Your task to perform on an android device: Open Google Image 0: 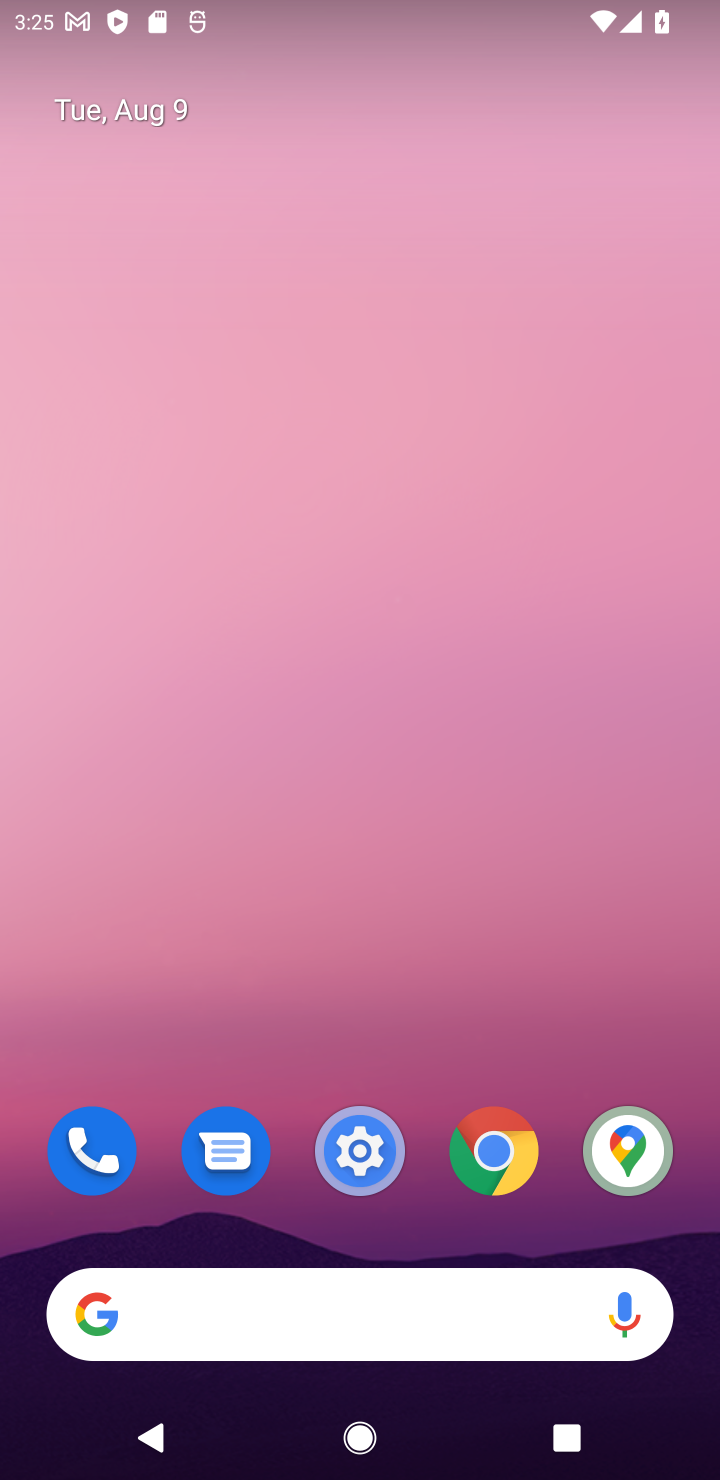
Step 0: drag from (301, 1407) to (321, 446)
Your task to perform on an android device: Open Google Image 1: 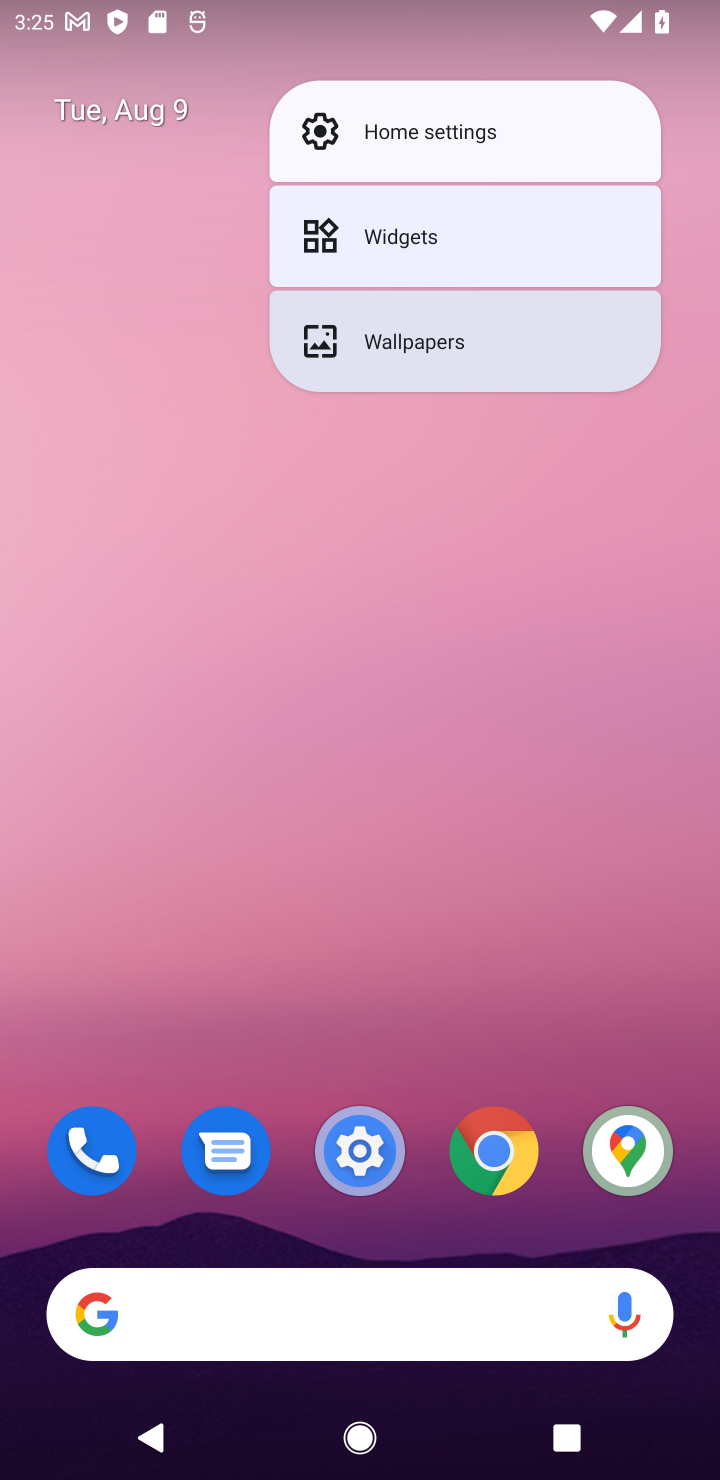
Step 1: drag from (276, 1405) to (281, 434)
Your task to perform on an android device: Open Google Image 2: 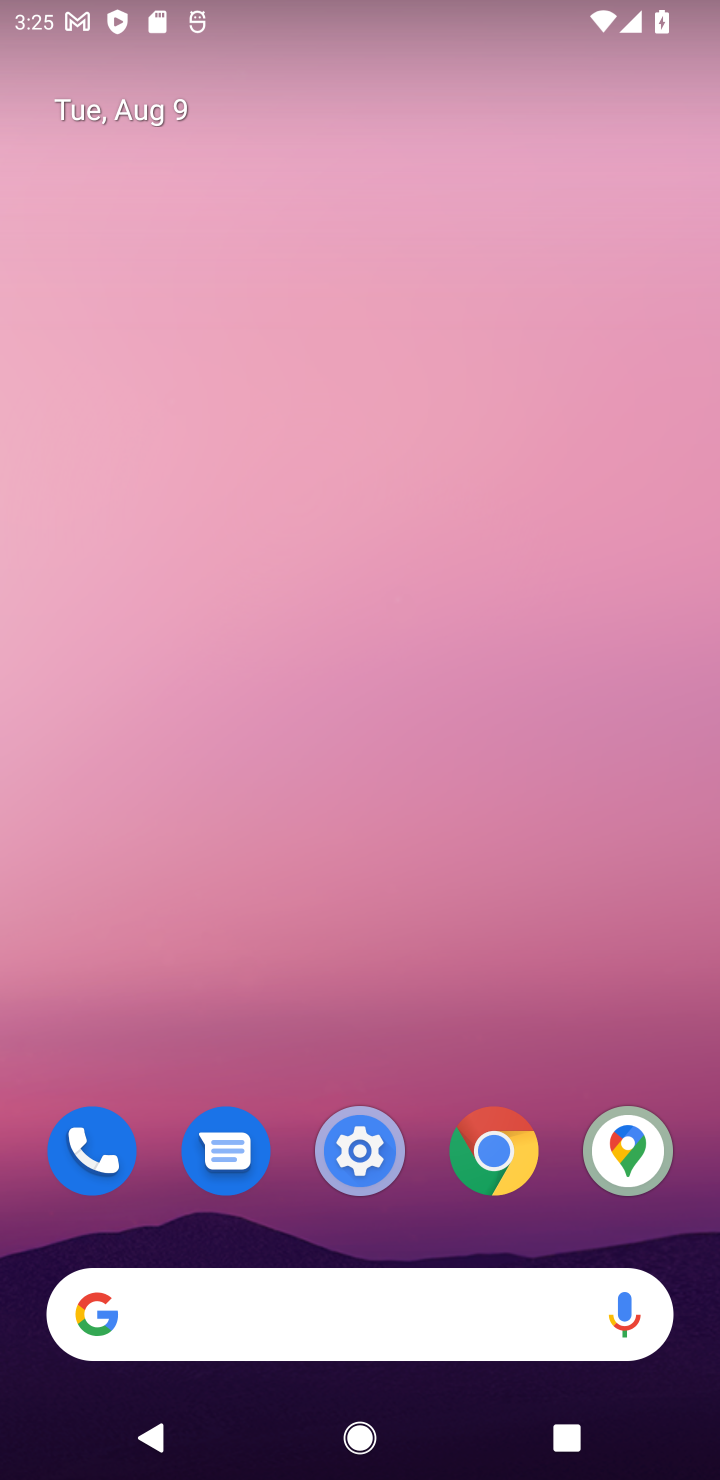
Step 2: drag from (229, 1438) to (377, 307)
Your task to perform on an android device: Open Google Image 3: 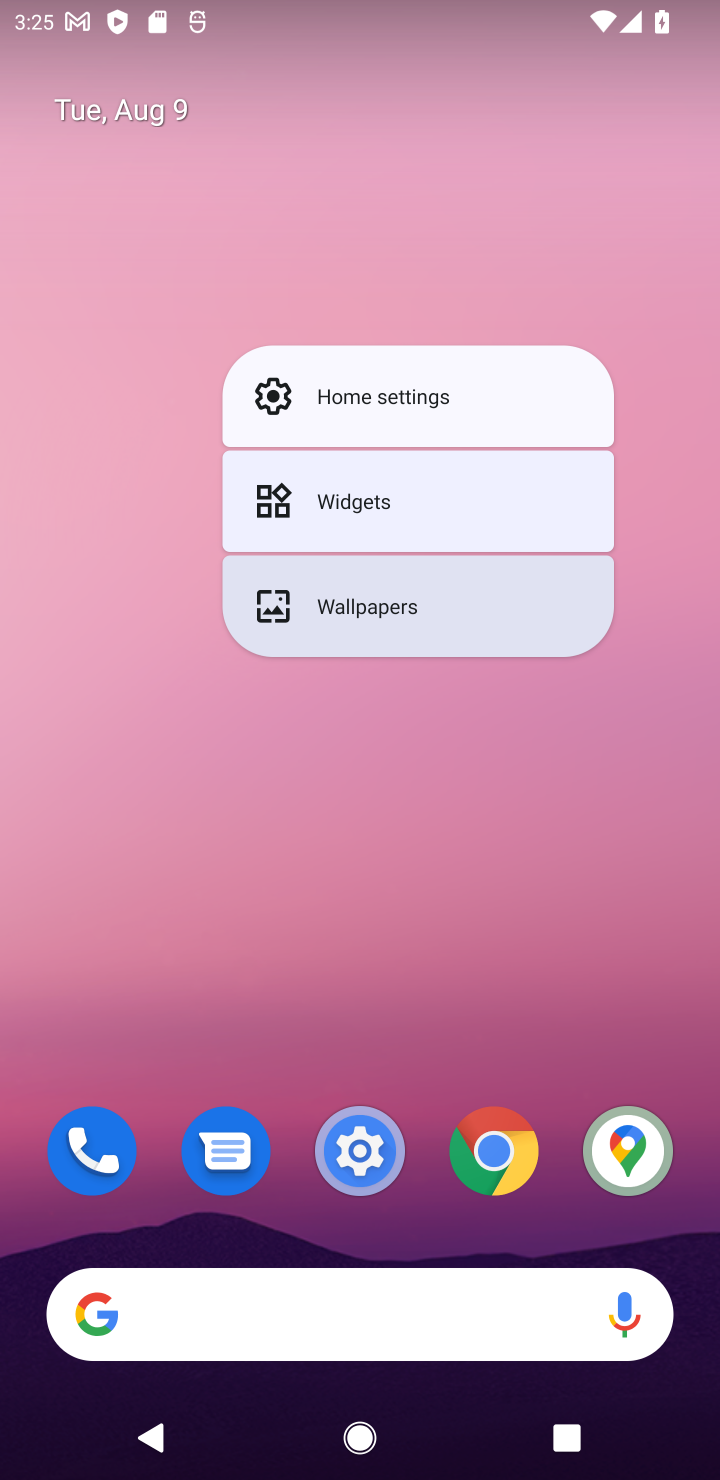
Step 3: drag from (266, 1329) to (299, 364)
Your task to perform on an android device: Open Google Image 4: 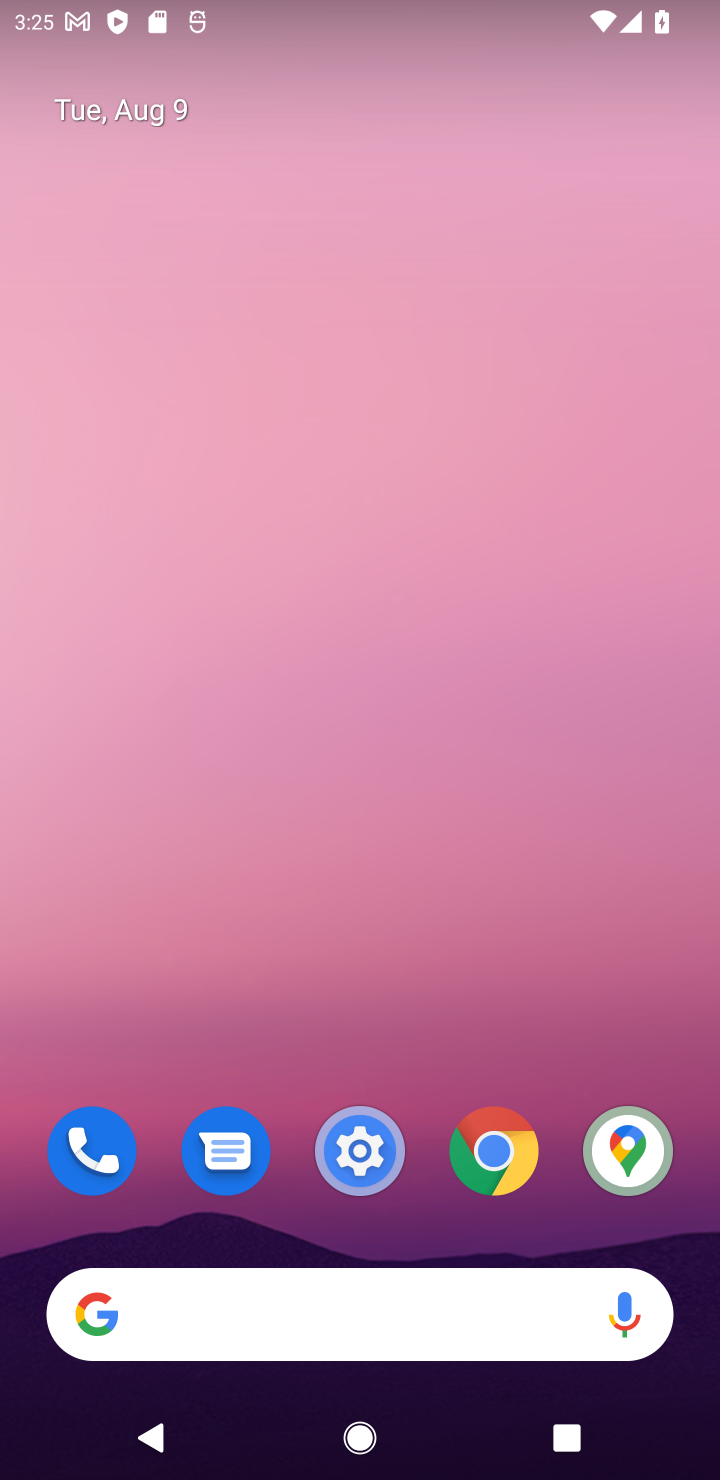
Step 4: drag from (258, 1012) to (491, 150)
Your task to perform on an android device: Open Google Image 5: 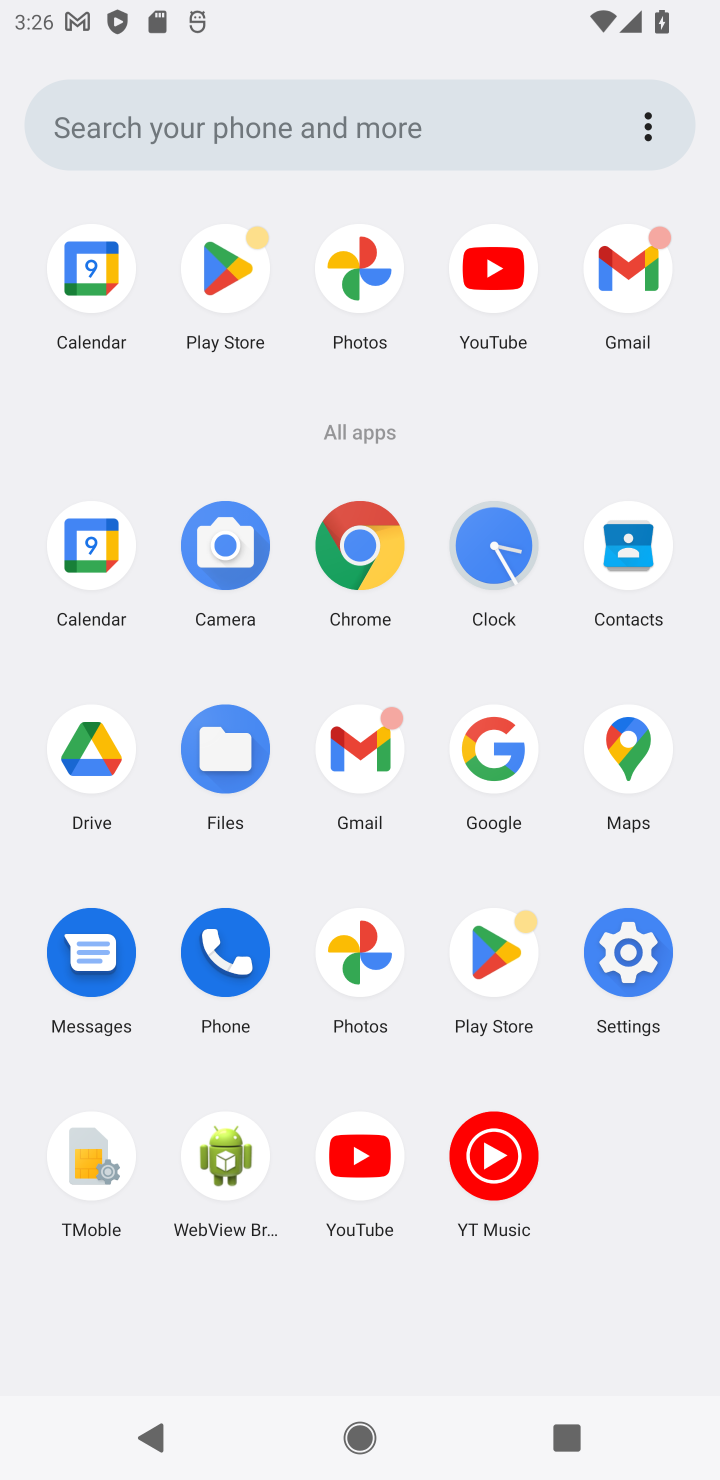
Step 5: click (489, 750)
Your task to perform on an android device: Open Google Image 6: 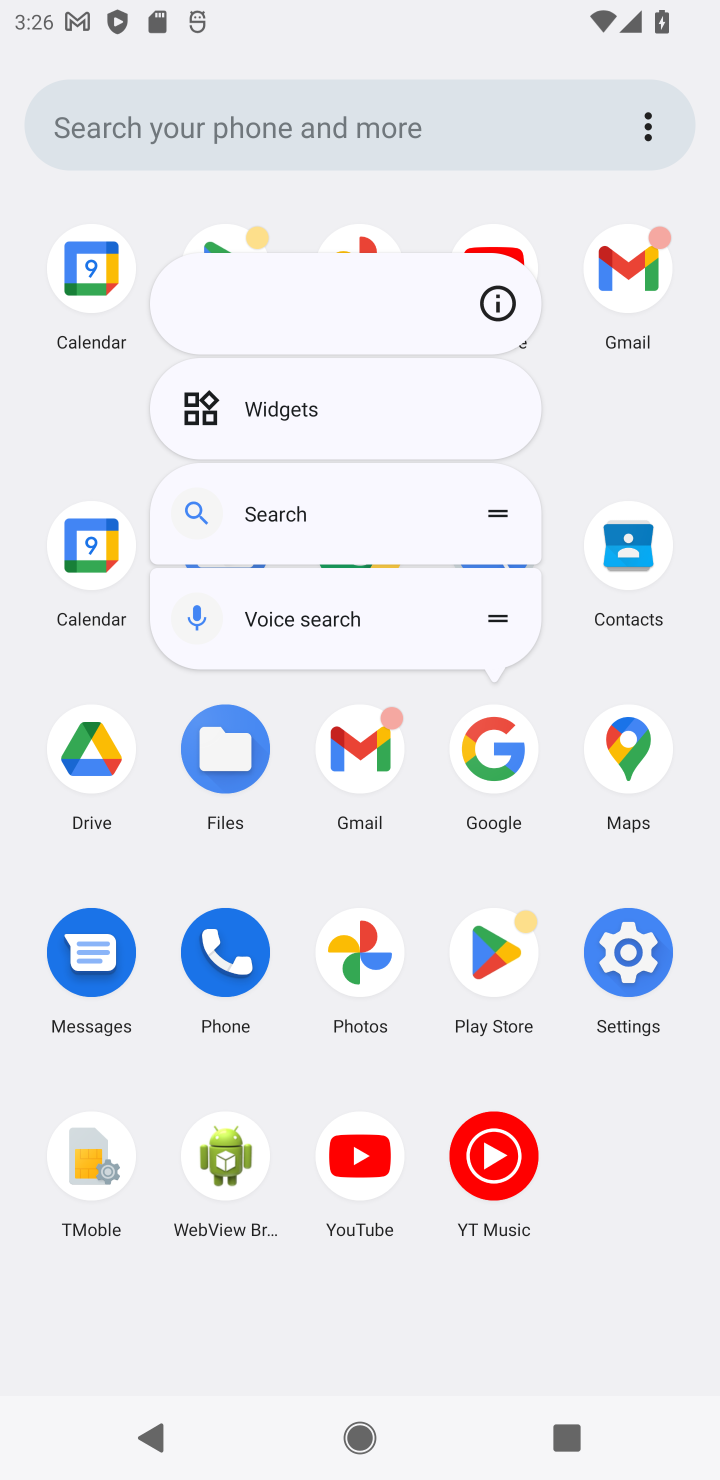
Step 6: click (489, 750)
Your task to perform on an android device: Open Google Image 7: 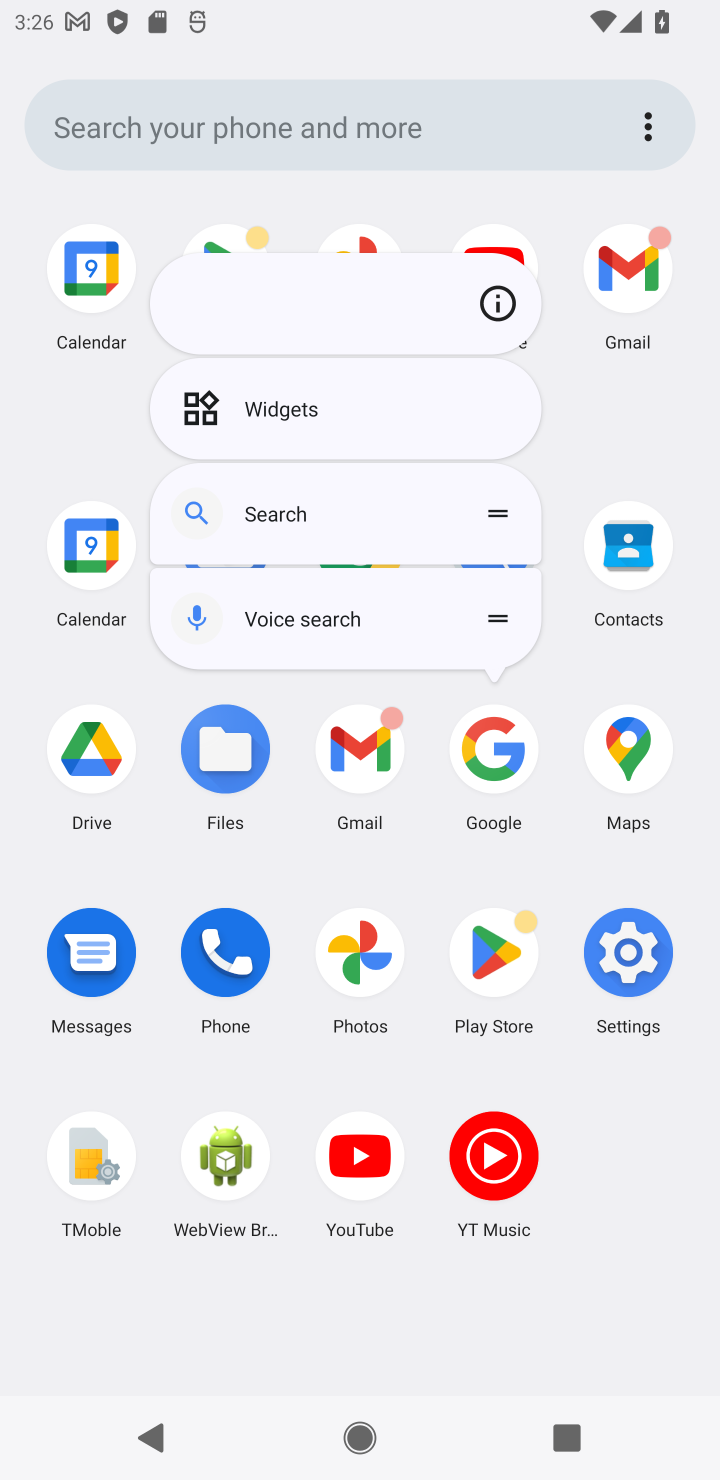
Step 7: click (500, 752)
Your task to perform on an android device: Open Google Image 8: 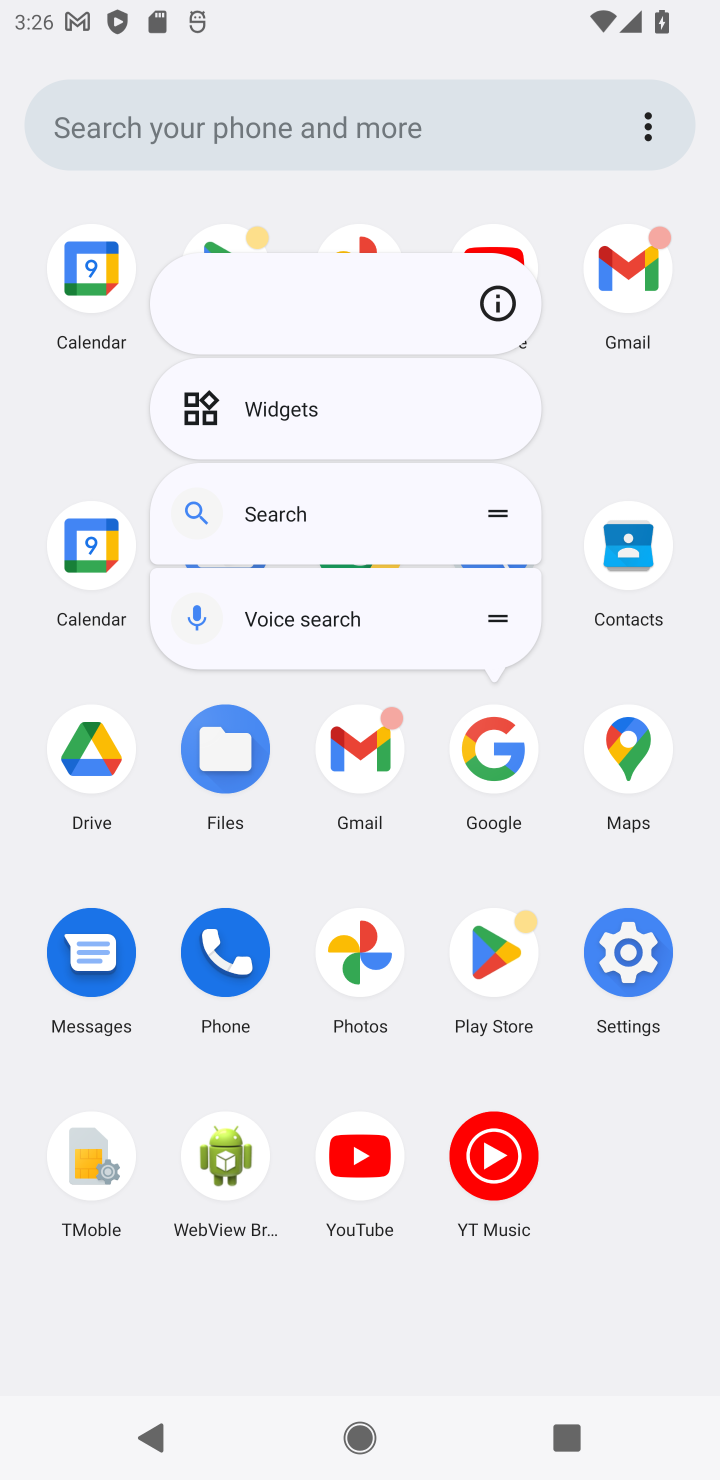
Step 8: click (500, 752)
Your task to perform on an android device: Open Google Image 9: 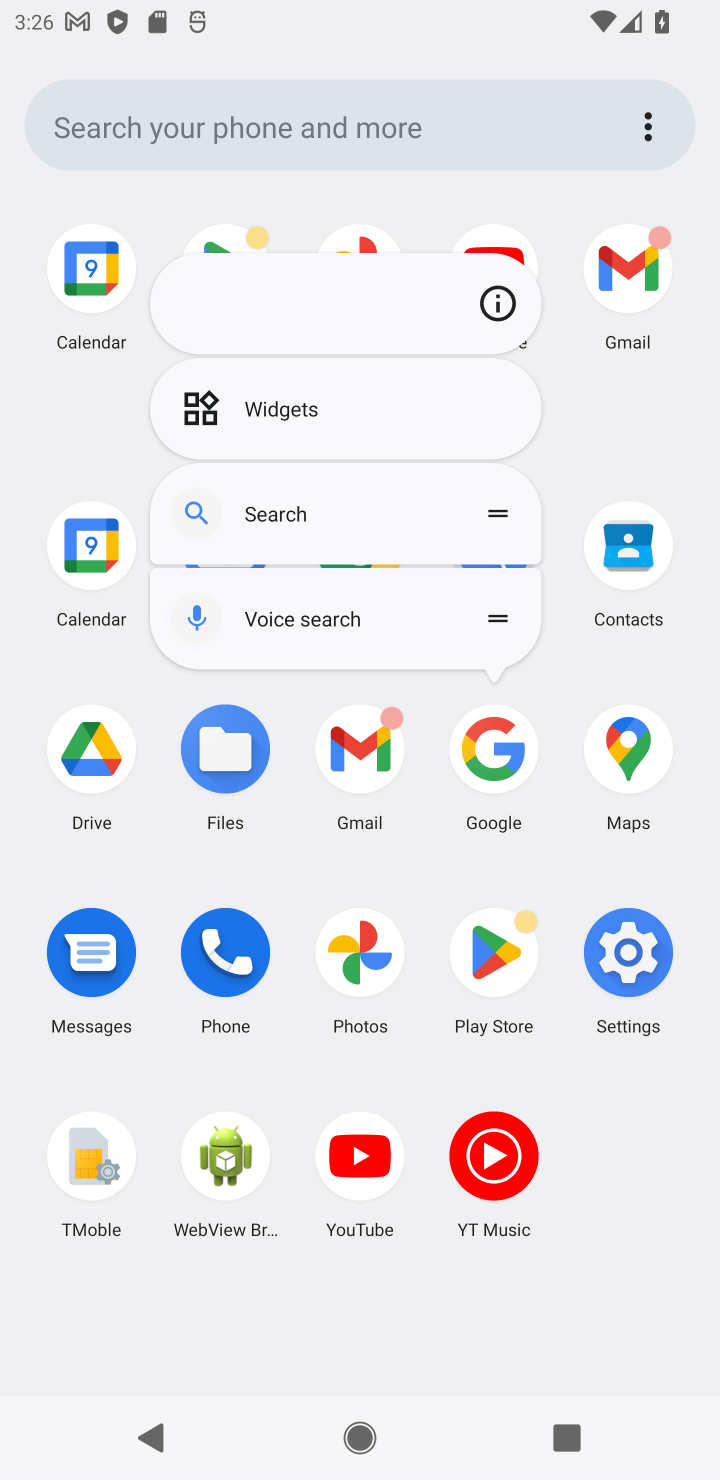
Step 9: click (500, 752)
Your task to perform on an android device: Open Google Image 10: 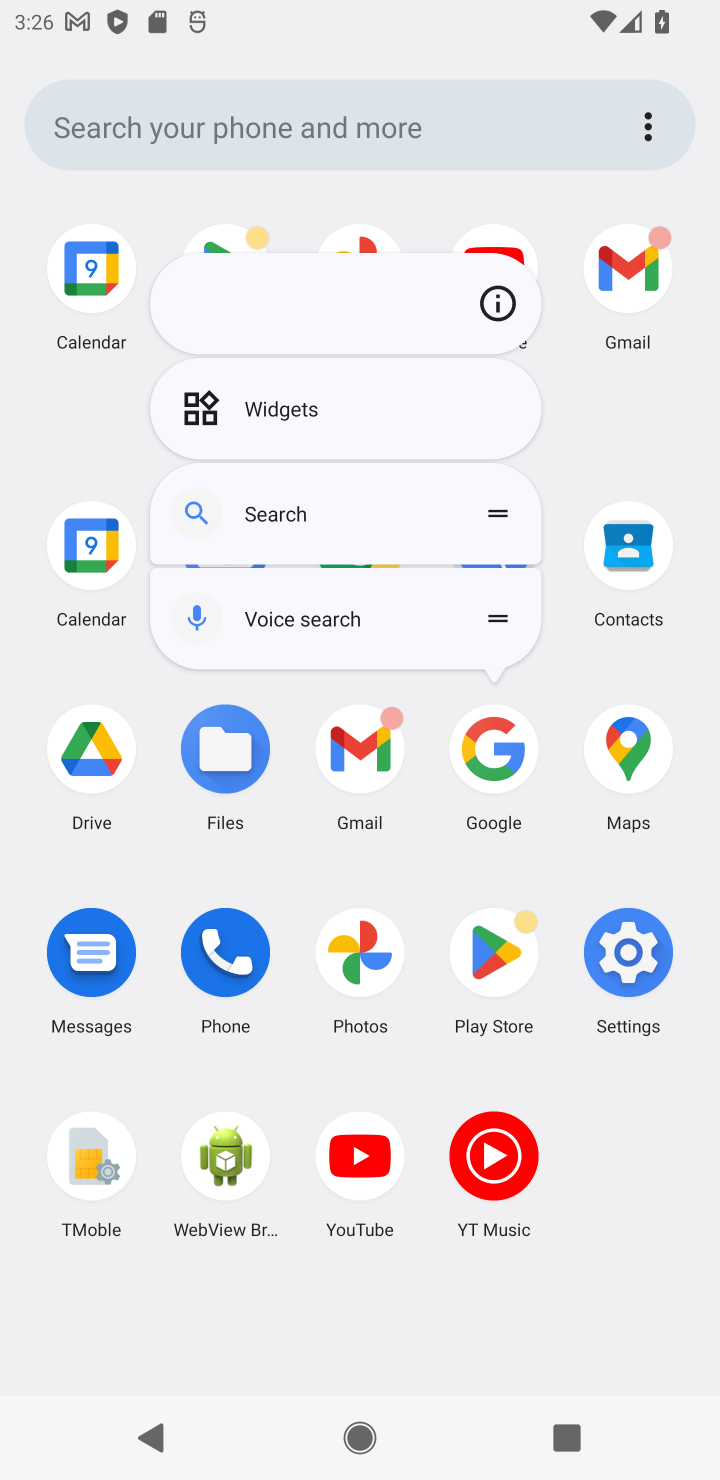
Step 10: click (467, 750)
Your task to perform on an android device: Open Google Image 11: 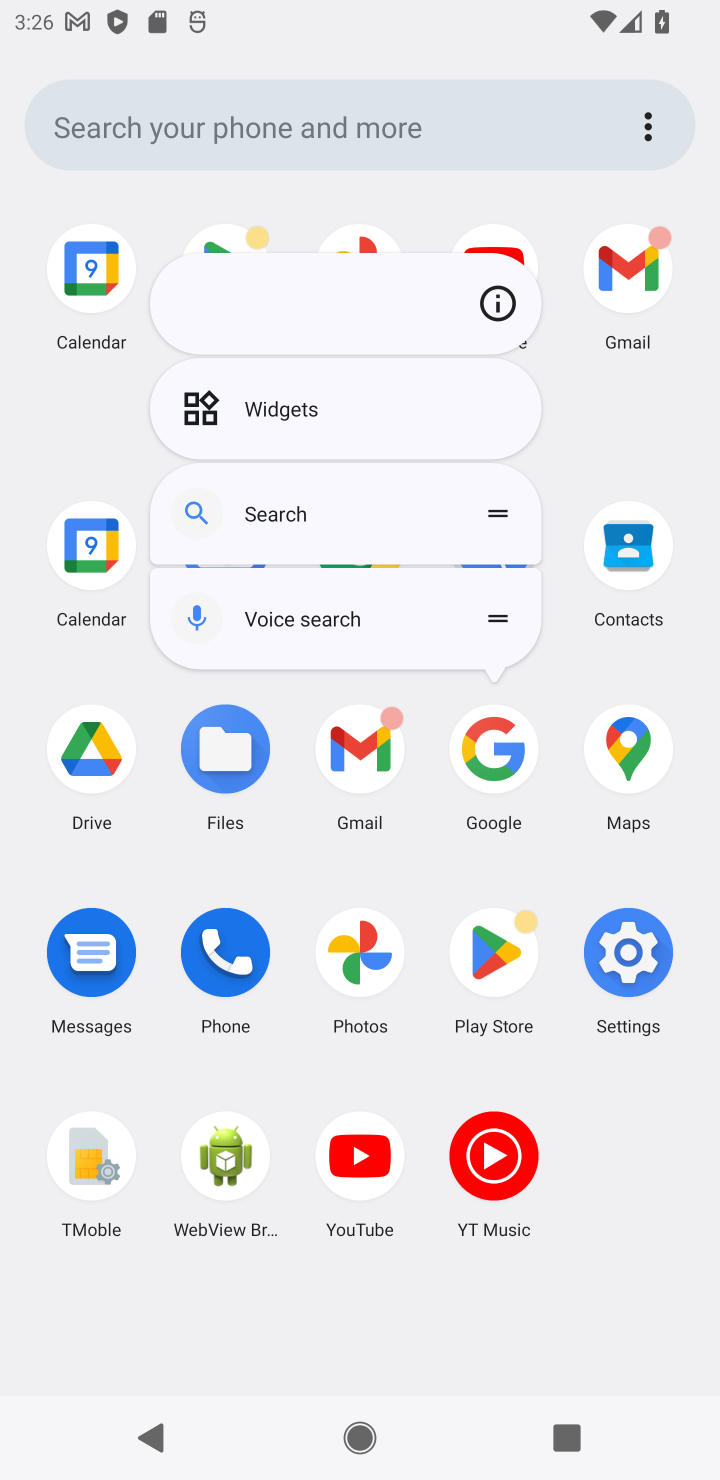
Step 11: click (493, 755)
Your task to perform on an android device: Open Google Image 12: 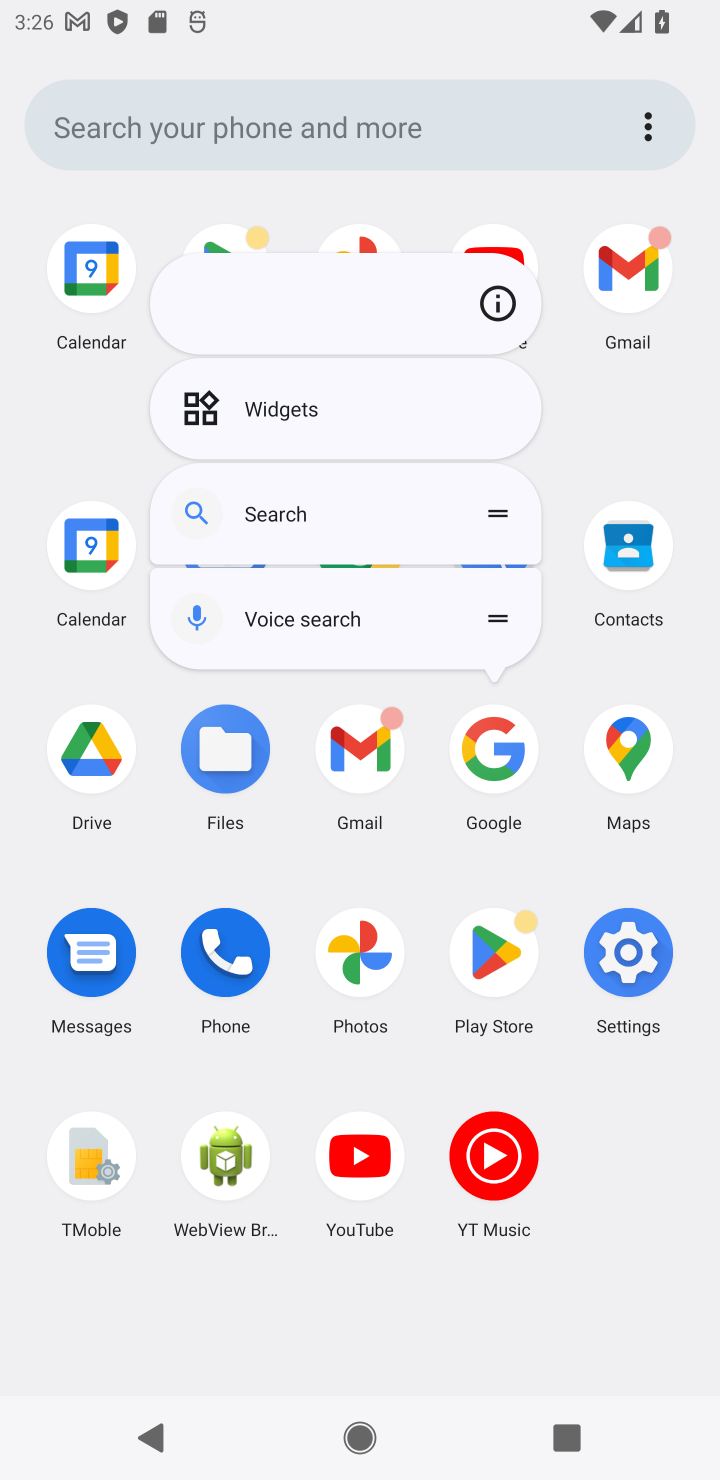
Step 12: click (480, 762)
Your task to perform on an android device: Open Google Image 13: 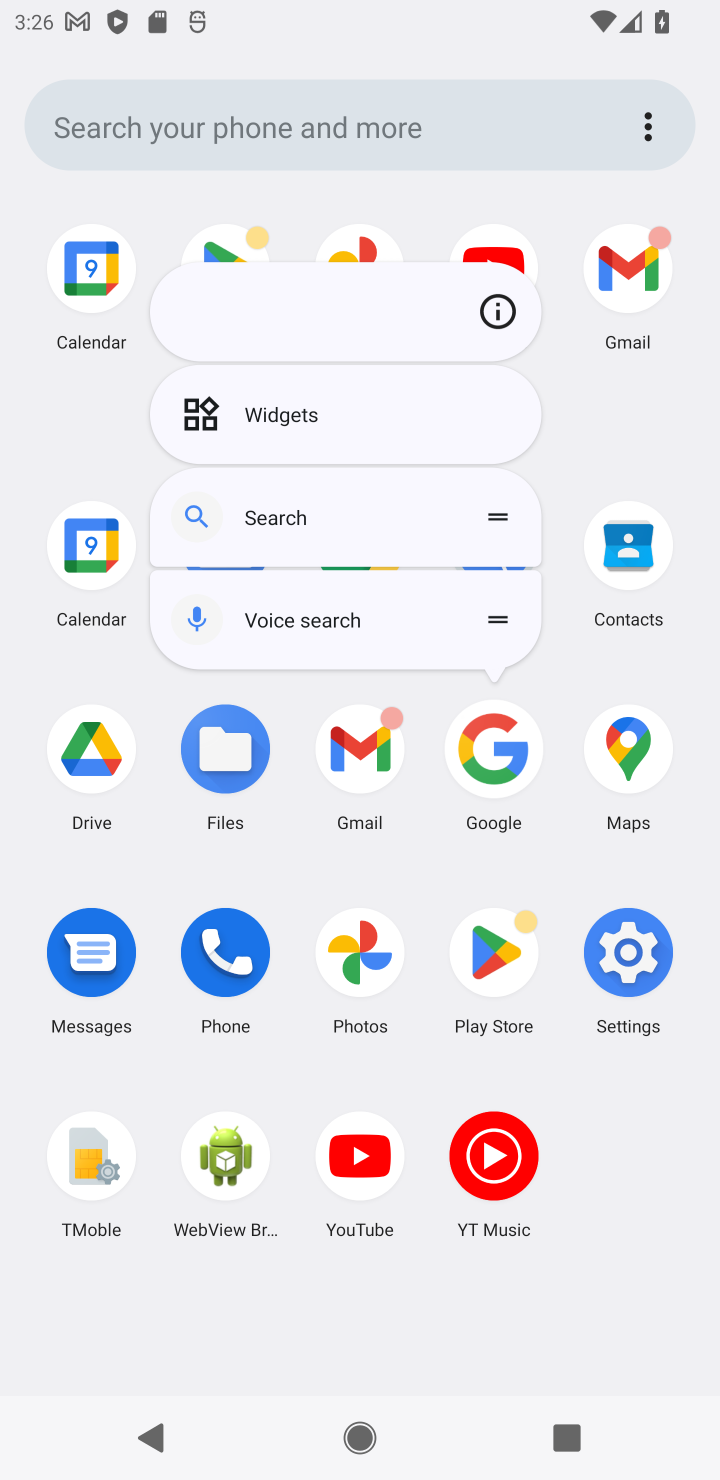
Step 13: click (480, 762)
Your task to perform on an android device: Open Google Image 14: 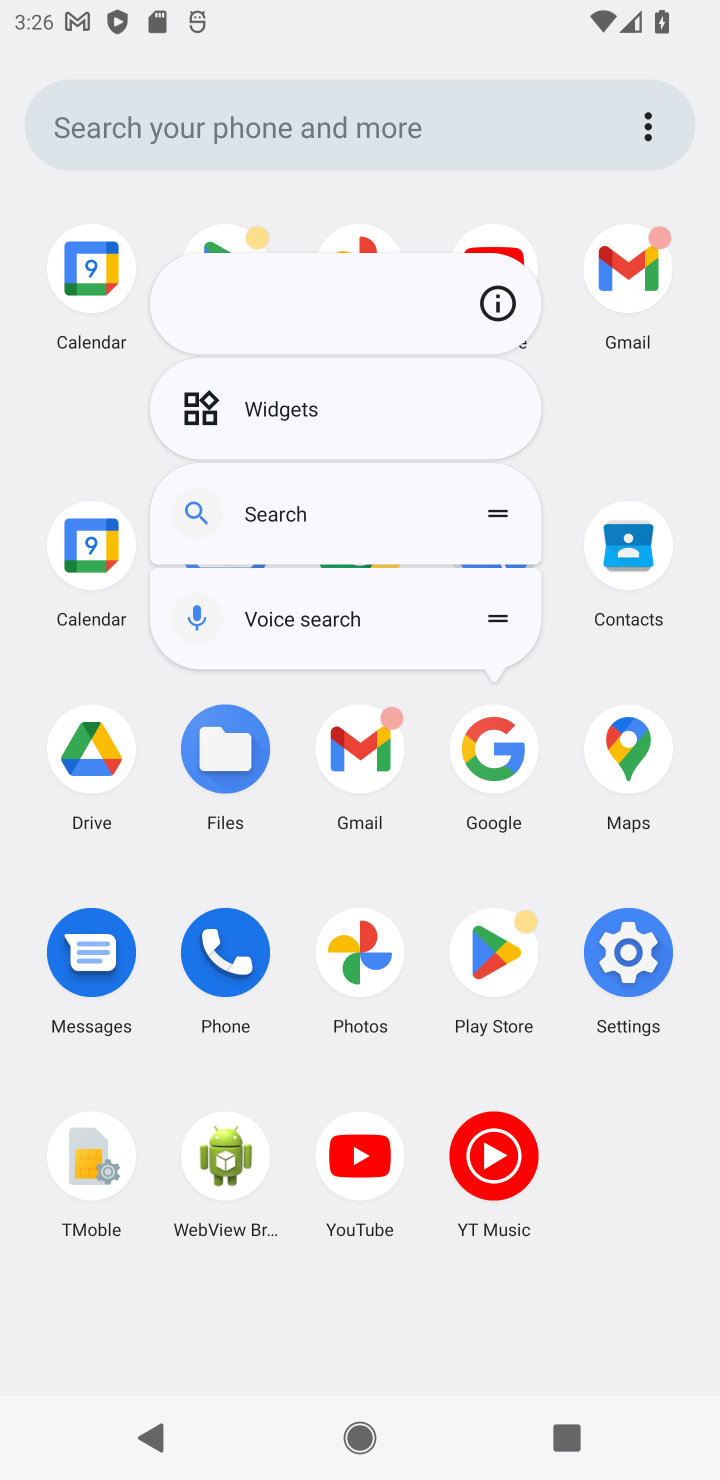
Step 14: click (487, 782)
Your task to perform on an android device: Open Google Image 15: 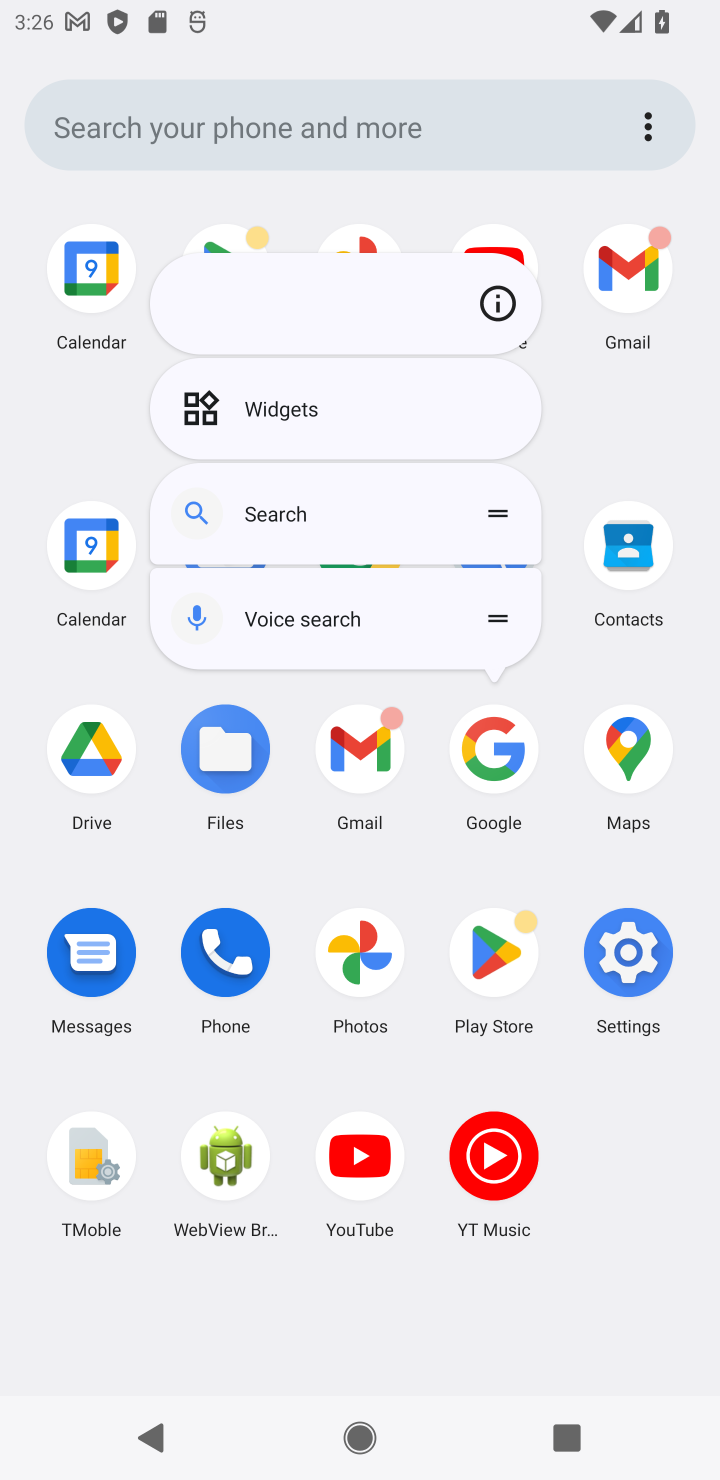
Step 15: click (487, 782)
Your task to perform on an android device: Open Google Image 16: 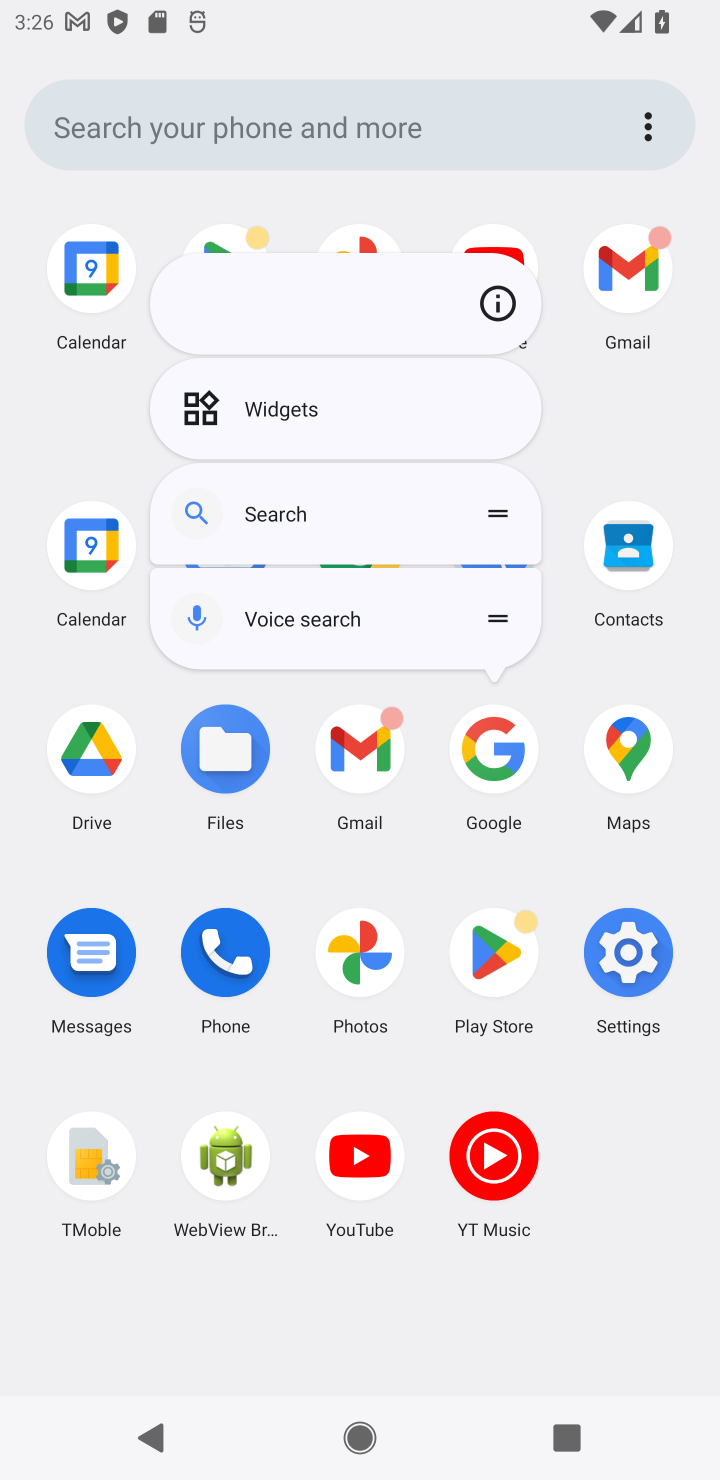
Step 16: click (479, 762)
Your task to perform on an android device: Open Google Image 17: 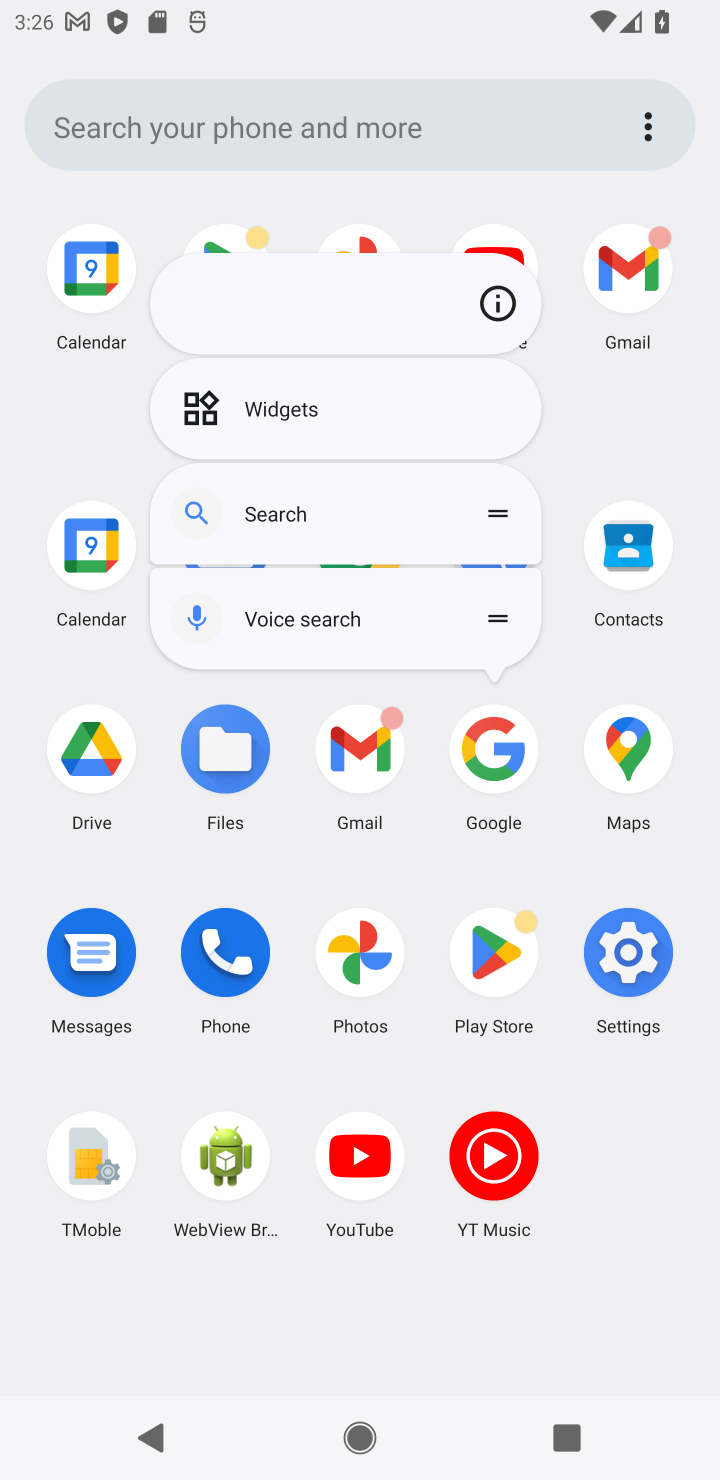
Step 17: click (520, 765)
Your task to perform on an android device: Open Google Image 18: 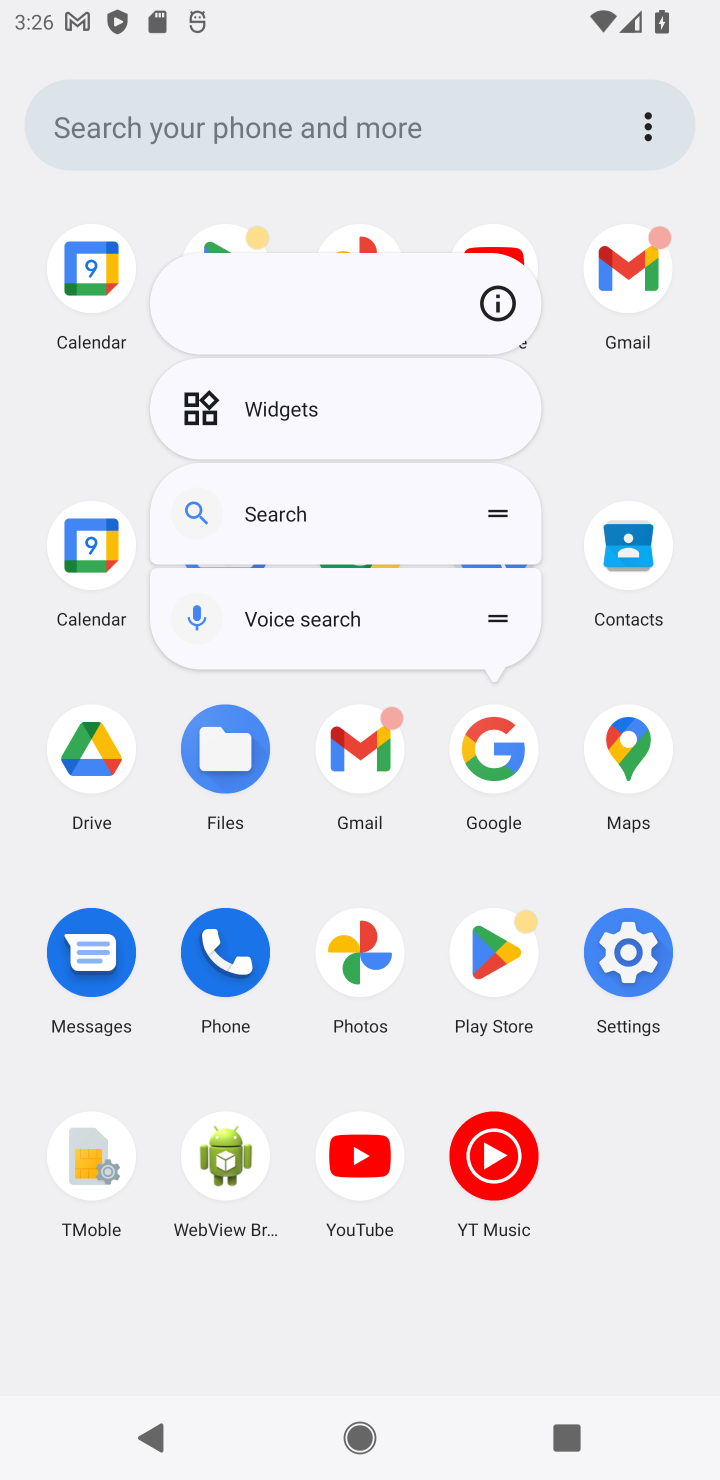
Step 18: click (520, 765)
Your task to perform on an android device: Open Google Image 19: 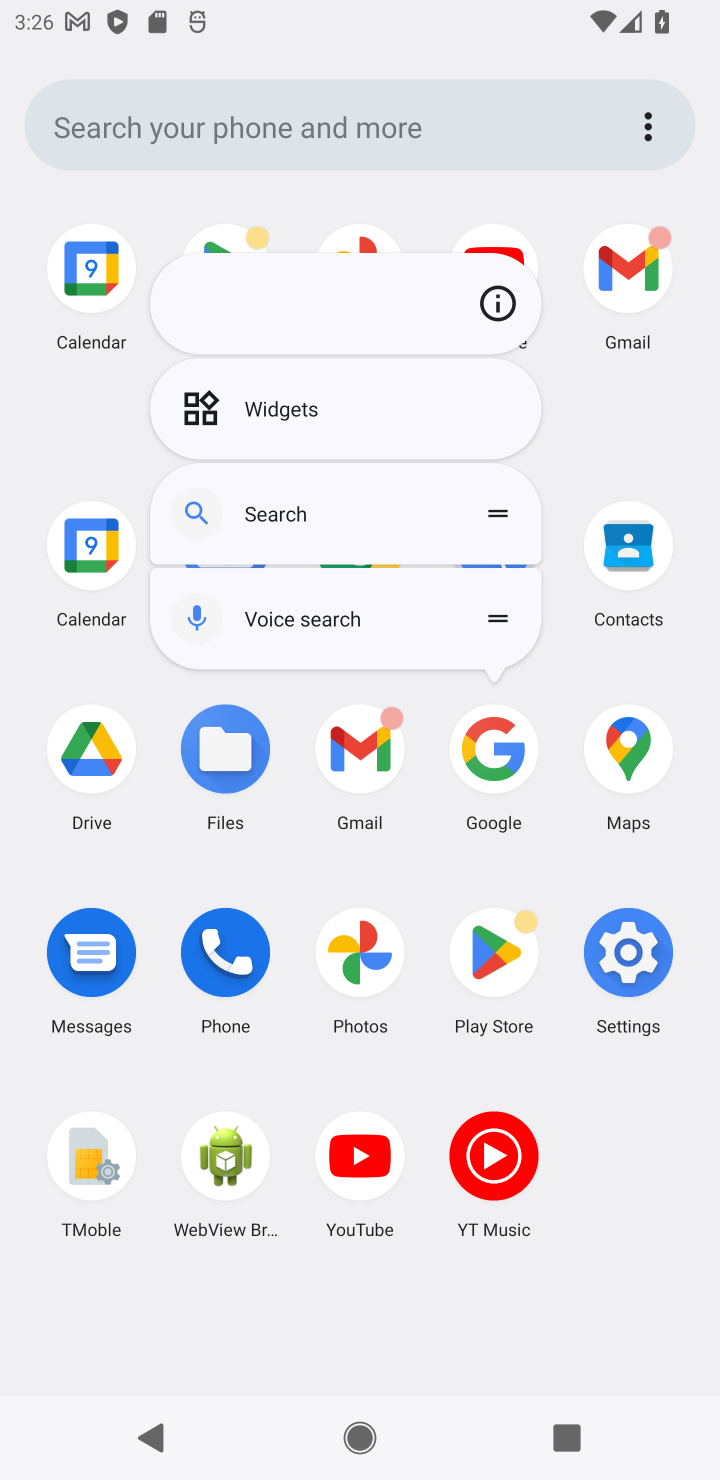
Step 19: click (520, 765)
Your task to perform on an android device: Open Google Image 20: 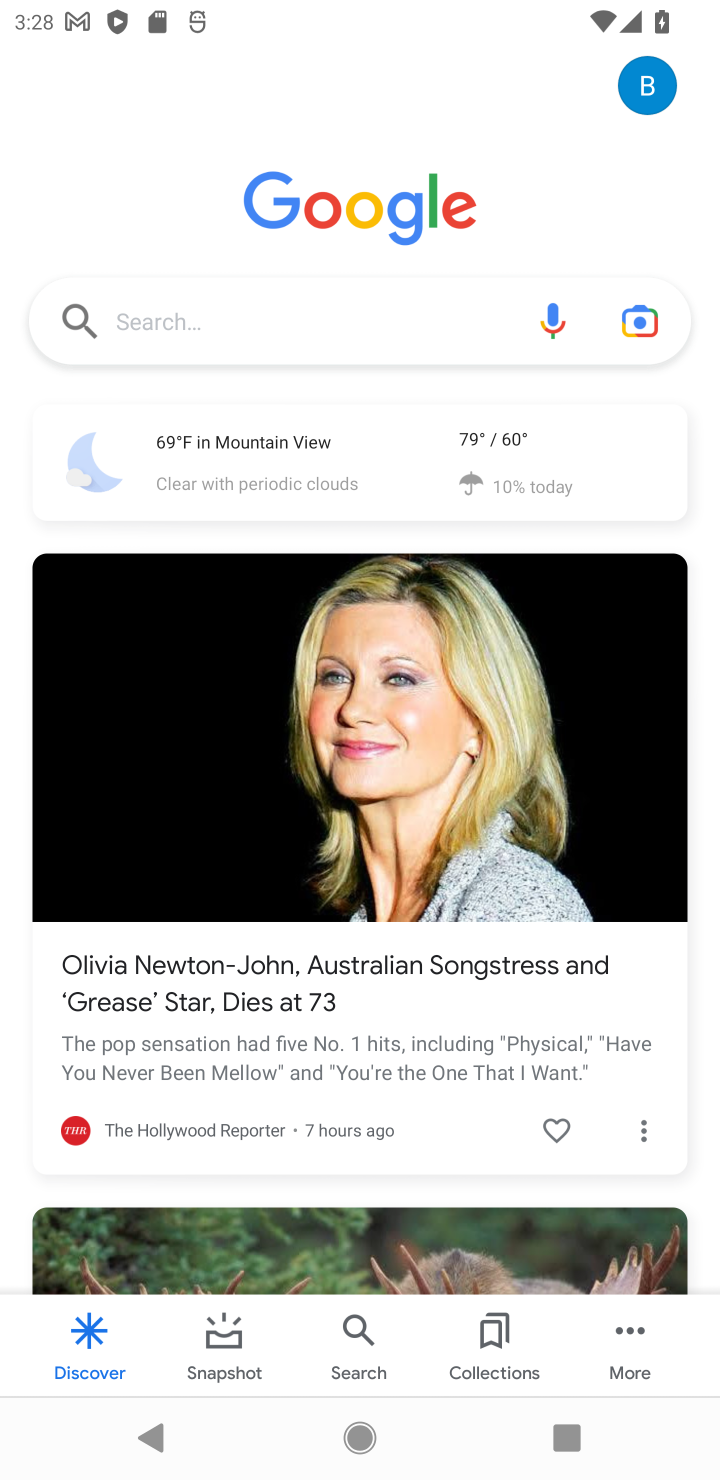
Step 20: task complete